Your task to perform on an android device: search for starred emails in the gmail app Image 0: 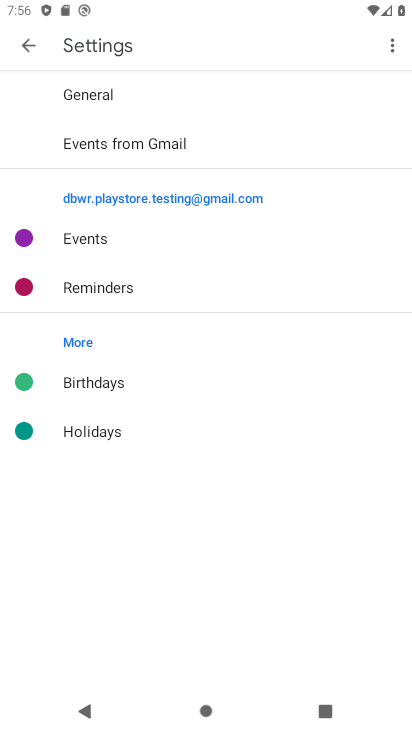
Step 0: press home button
Your task to perform on an android device: search for starred emails in the gmail app Image 1: 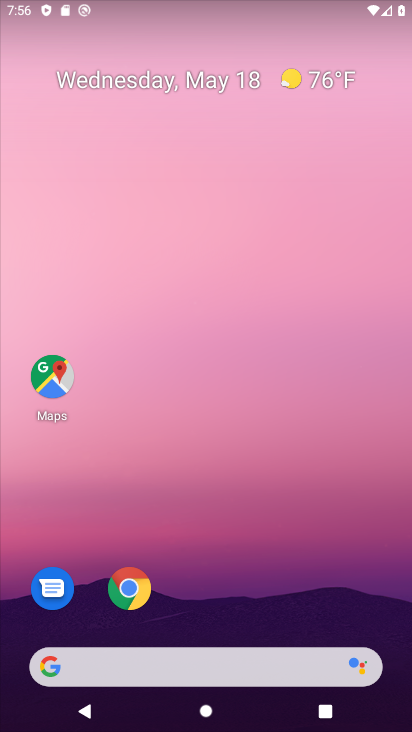
Step 1: drag from (287, 586) to (347, 2)
Your task to perform on an android device: search for starred emails in the gmail app Image 2: 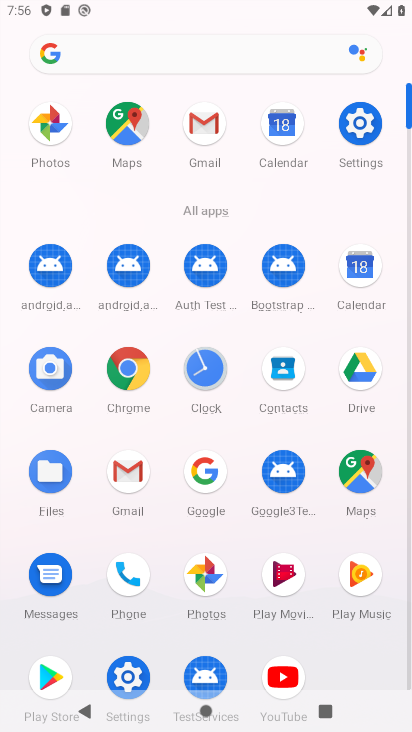
Step 2: click (362, 164)
Your task to perform on an android device: search for starred emails in the gmail app Image 3: 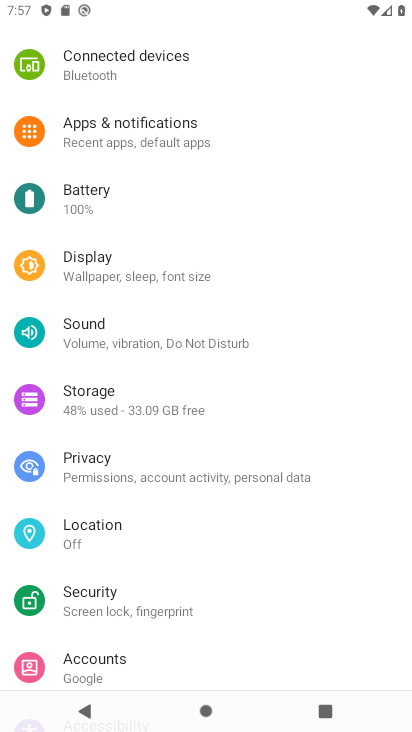
Step 3: press home button
Your task to perform on an android device: search for starred emails in the gmail app Image 4: 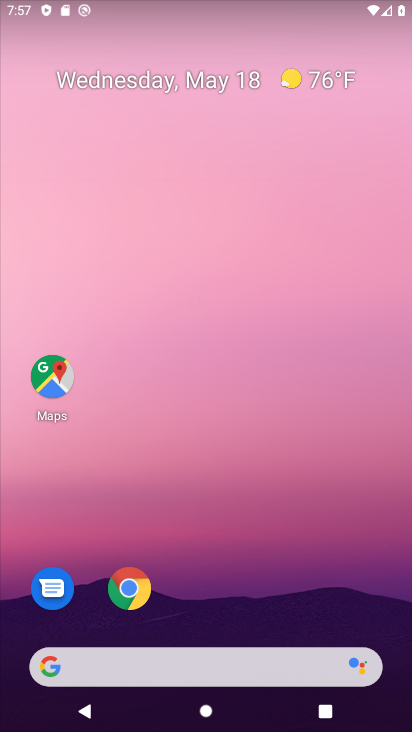
Step 4: drag from (343, 585) to (316, 137)
Your task to perform on an android device: search for starred emails in the gmail app Image 5: 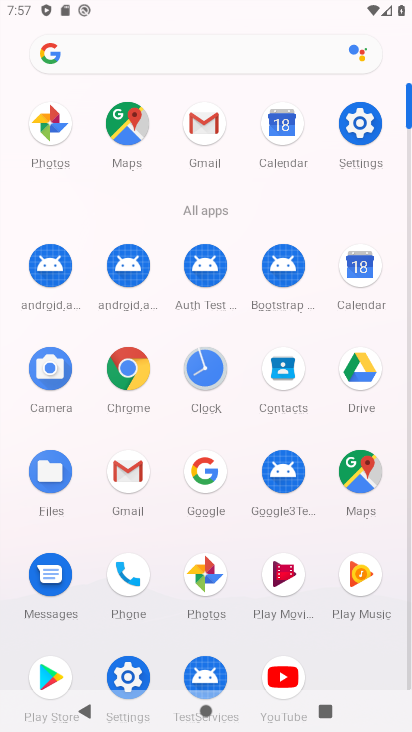
Step 5: click (209, 149)
Your task to perform on an android device: search for starred emails in the gmail app Image 6: 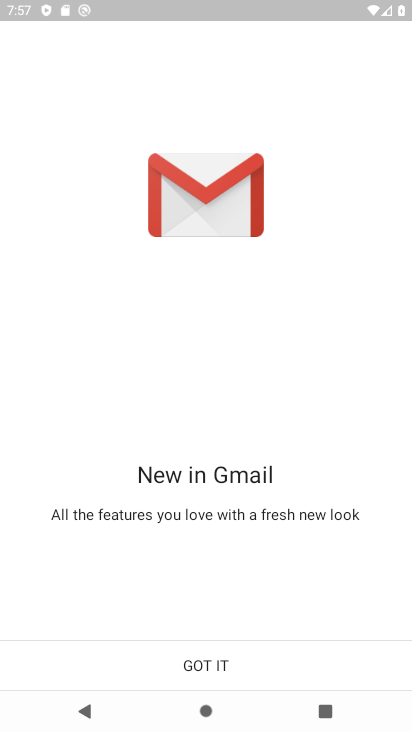
Step 6: click (206, 671)
Your task to perform on an android device: search for starred emails in the gmail app Image 7: 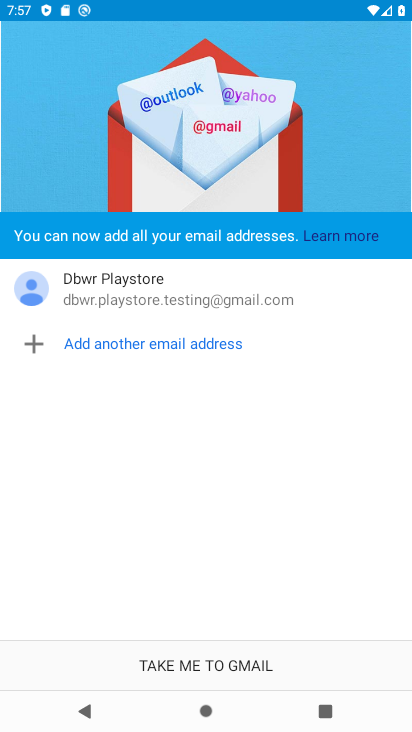
Step 7: click (206, 671)
Your task to perform on an android device: search for starred emails in the gmail app Image 8: 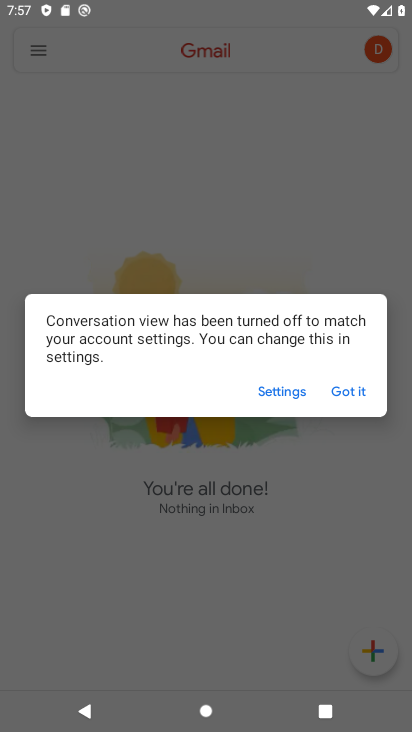
Step 8: click (340, 384)
Your task to perform on an android device: search for starred emails in the gmail app Image 9: 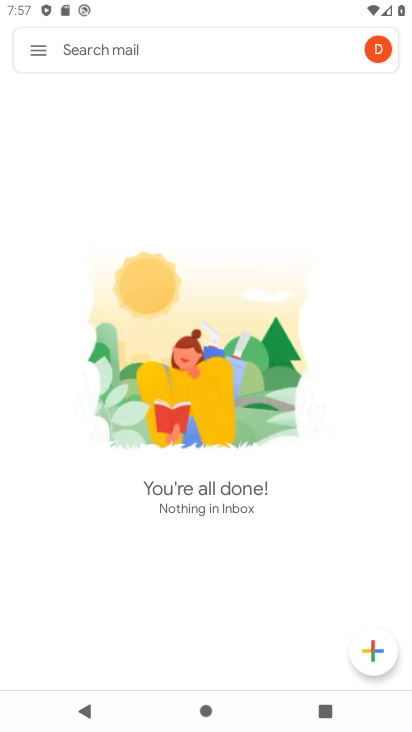
Step 9: click (27, 50)
Your task to perform on an android device: search for starred emails in the gmail app Image 10: 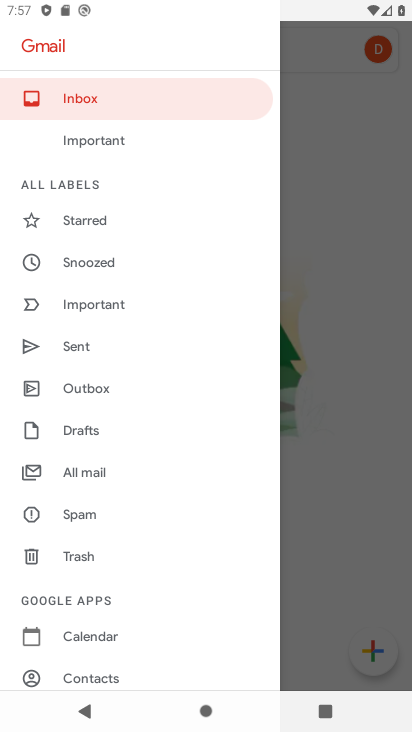
Step 10: click (131, 213)
Your task to perform on an android device: search for starred emails in the gmail app Image 11: 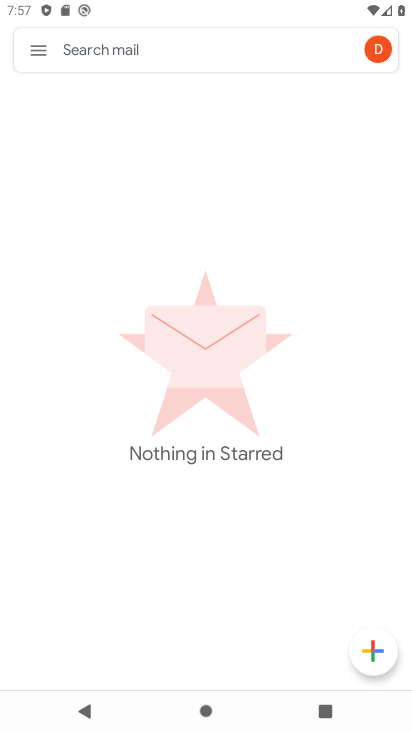
Step 11: task complete